Your task to perform on an android device: check google app version Image 0: 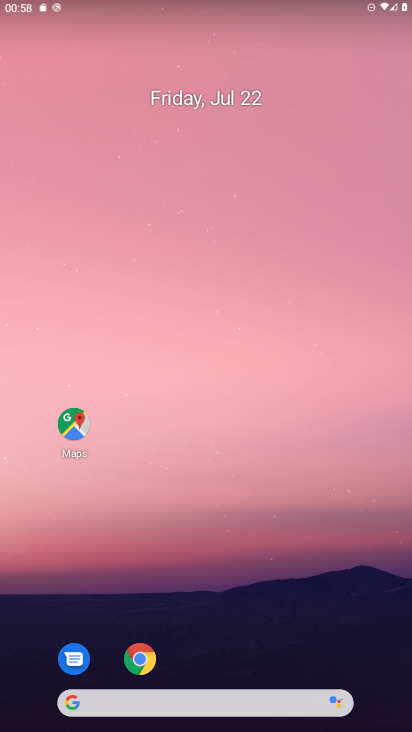
Step 0: drag from (190, 698) to (224, 208)
Your task to perform on an android device: check google app version Image 1: 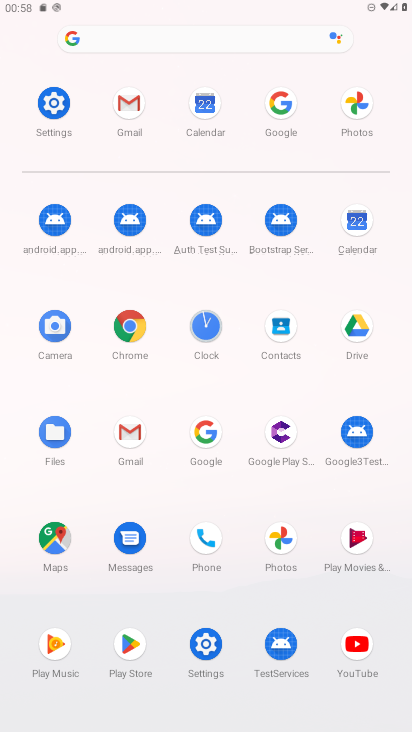
Step 1: click (282, 101)
Your task to perform on an android device: check google app version Image 2: 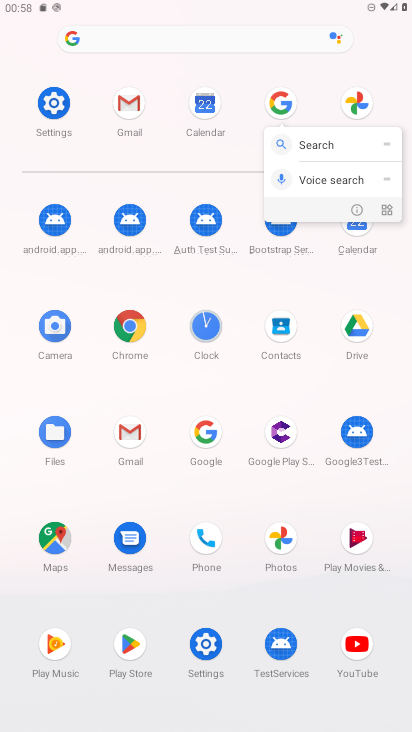
Step 2: click (358, 208)
Your task to perform on an android device: check google app version Image 3: 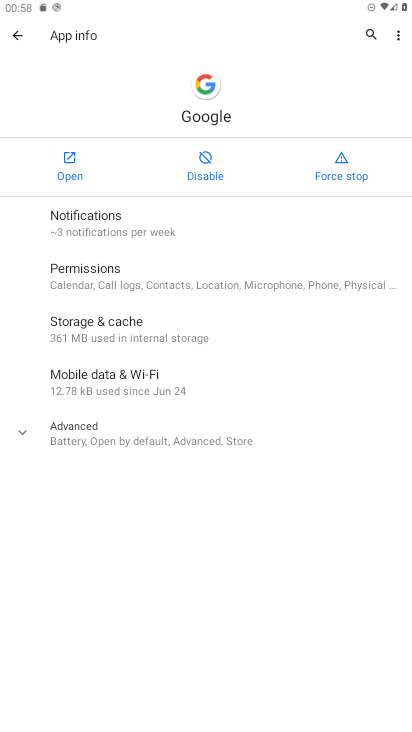
Step 3: click (98, 442)
Your task to perform on an android device: check google app version Image 4: 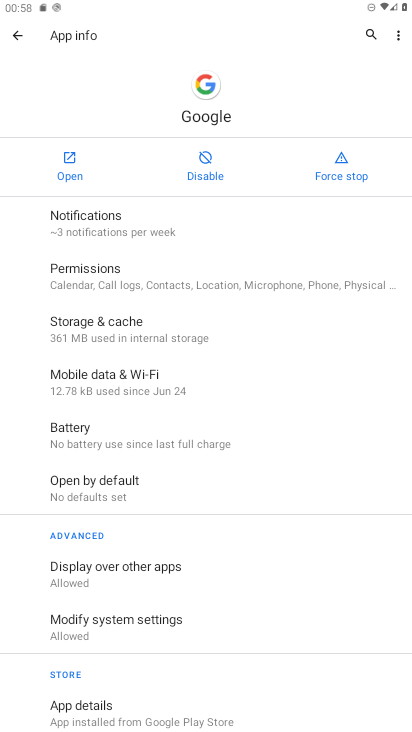
Step 4: task complete